Your task to perform on an android device: Open the Play Movies app and select the watchlist tab. Image 0: 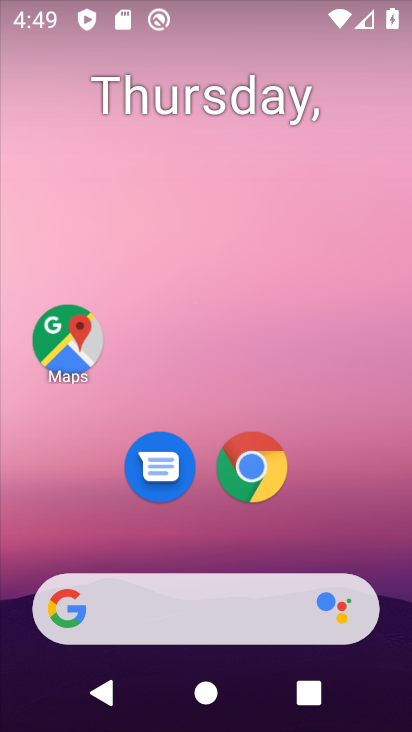
Step 0: drag from (347, 555) to (275, 201)
Your task to perform on an android device: Open the Play Movies app and select the watchlist tab. Image 1: 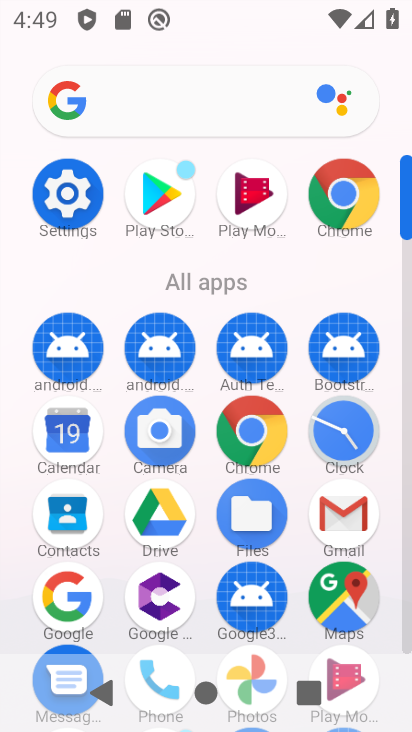
Step 1: click (409, 635)
Your task to perform on an android device: Open the Play Movies app and select the watchlist tab. Image 2: 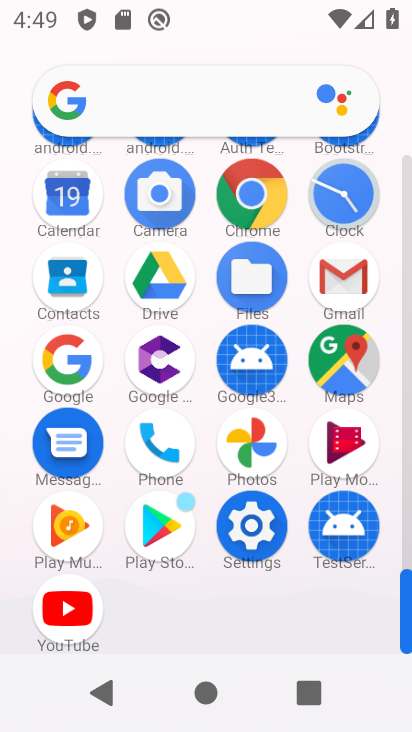
Step 2: click (324, 428)
Your task to perform on an android device: Open the Play Movies app and select the watchlist tab. Image 3: 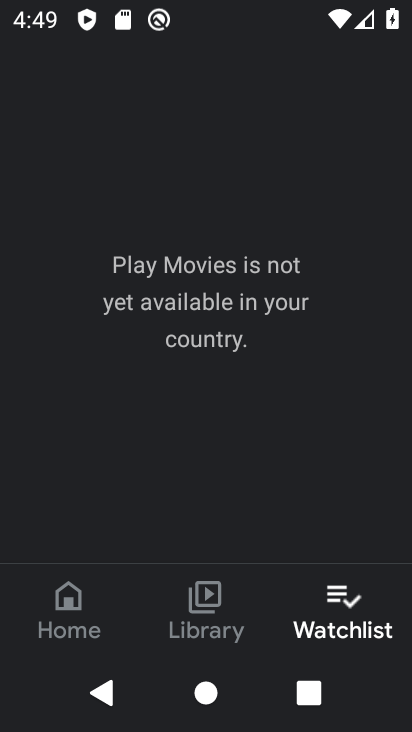
Step 3: task complete